Your task to perform on an android device: turn pop-ups off in chrome Image 0: 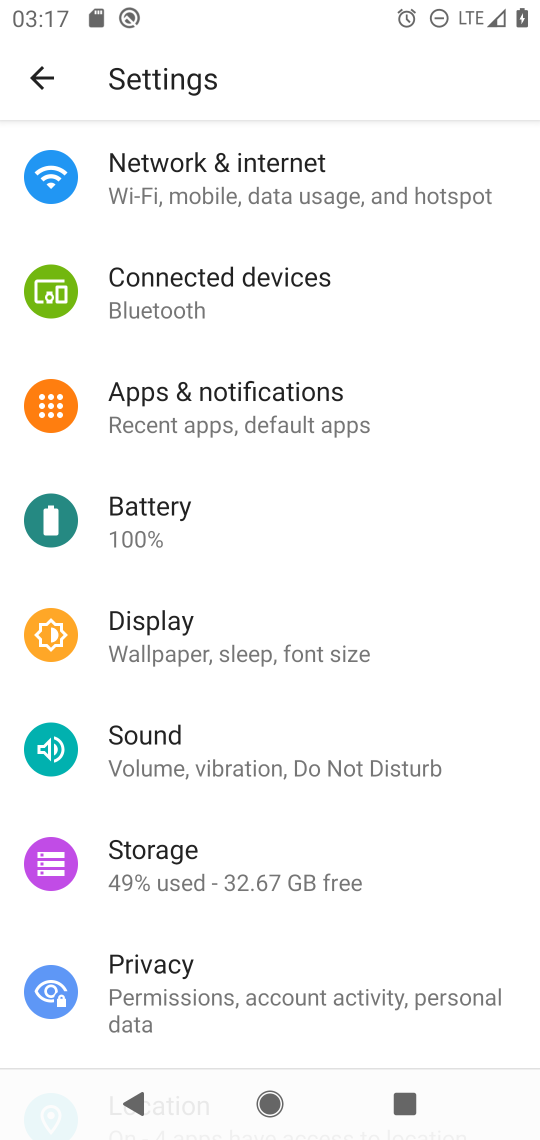
Step 0: press home button
Your task to perform on an android device: turn pop-ups off in chrome Image 1: 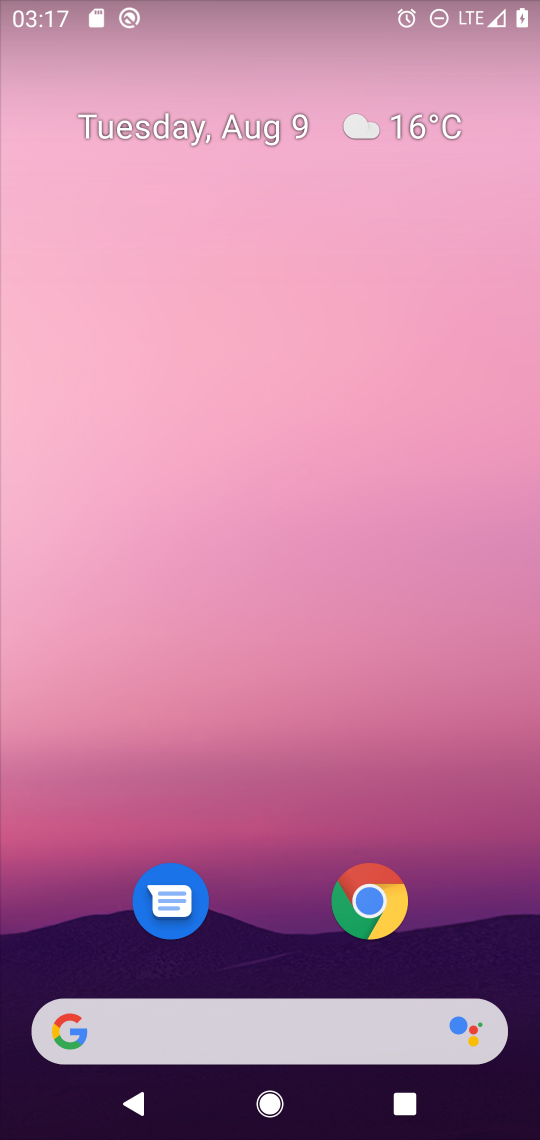
Step 1: click (372, 906)
Your task to perform on an android device: turn pop-ups off in chrome Image 2: 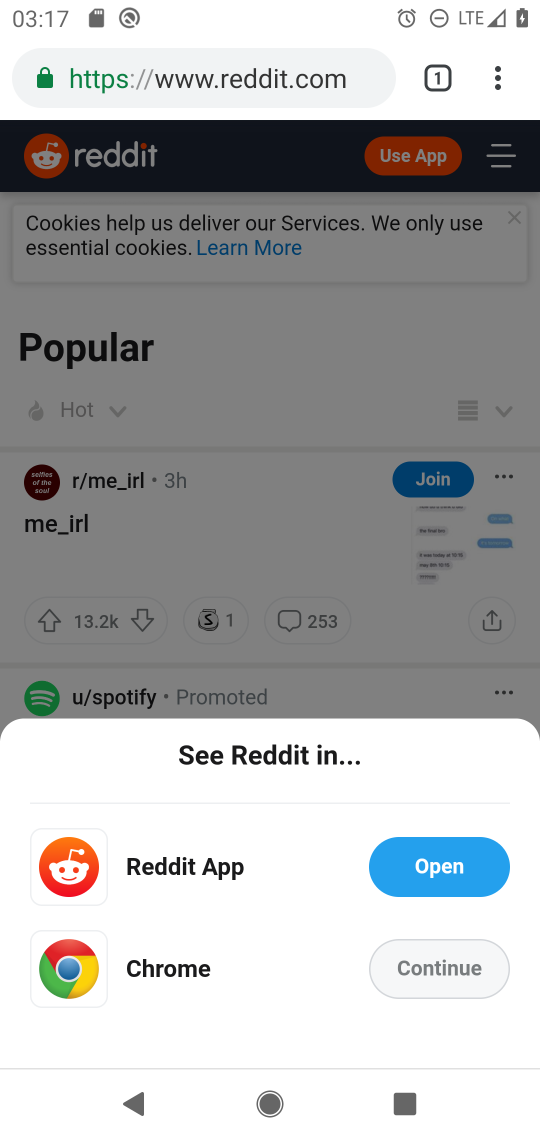
Step 2: click (487, 85)
Your task to perform on an android device: turn pop-ups off in chrome Image 3: 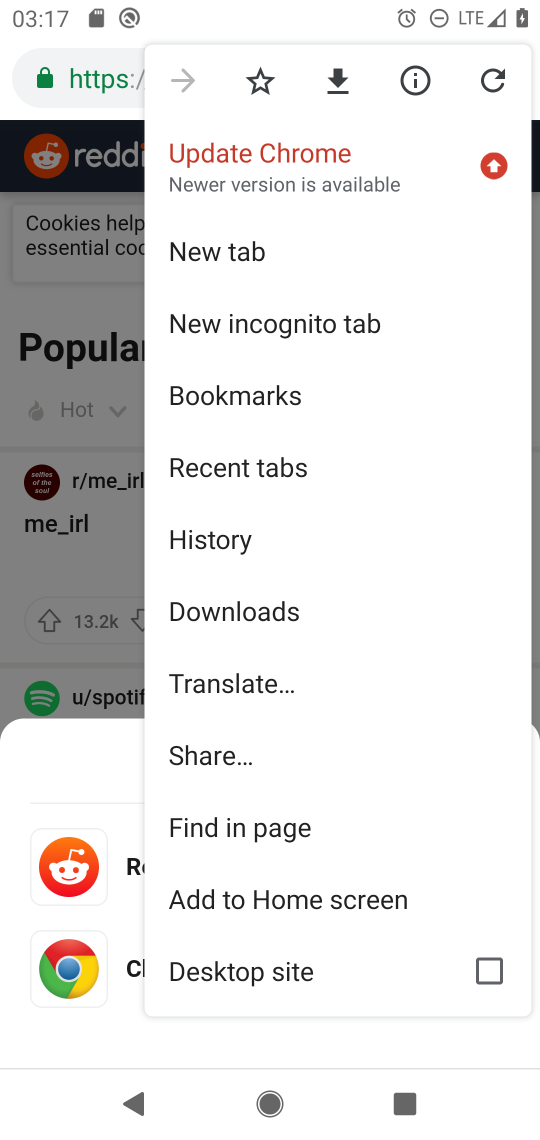
Step 3: drag from (384, 832) to (377, 329)
Your task to perform on an android device: turn pop-ups off in chrome Image 4: 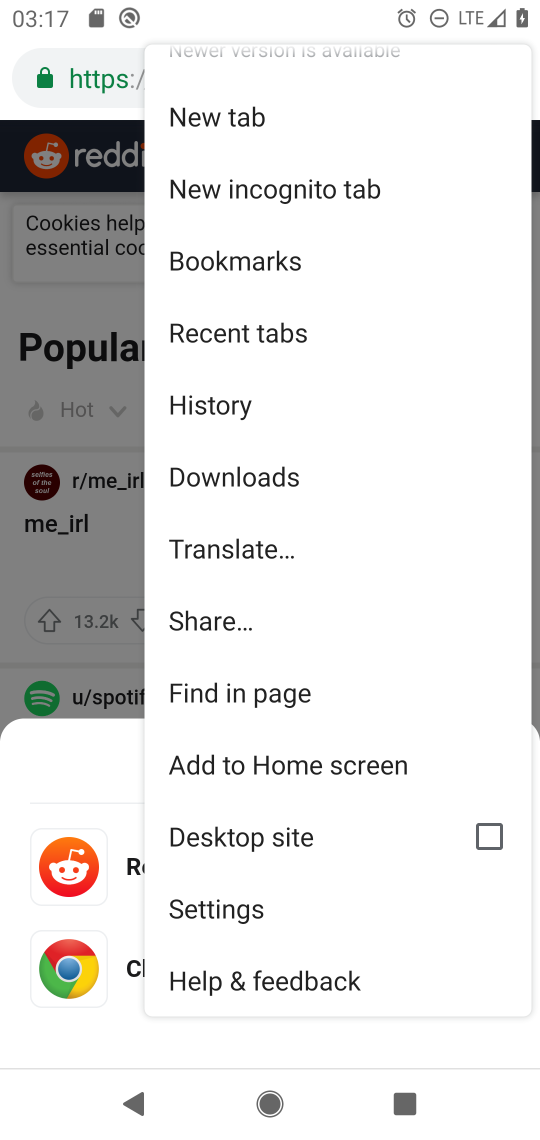
Step 4: click (201, 915)
Your task to perform on an android device: turn pop-ups off in chrome Image 5: 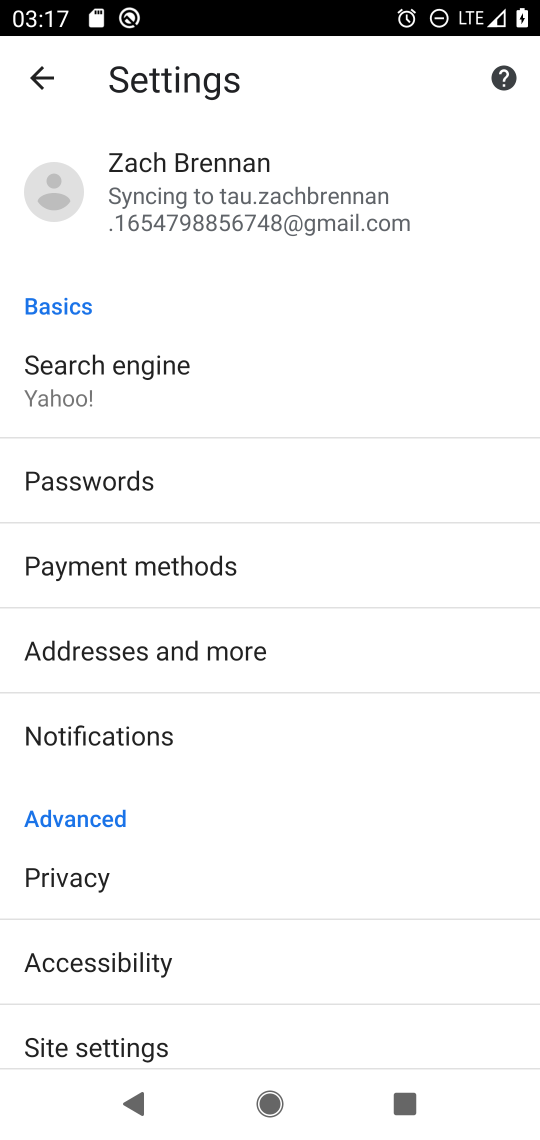
Step 5: drag from (249, 972) to (280, 431)
Your task to perform on an android device: turn pop-ups off in chrome Image 6: 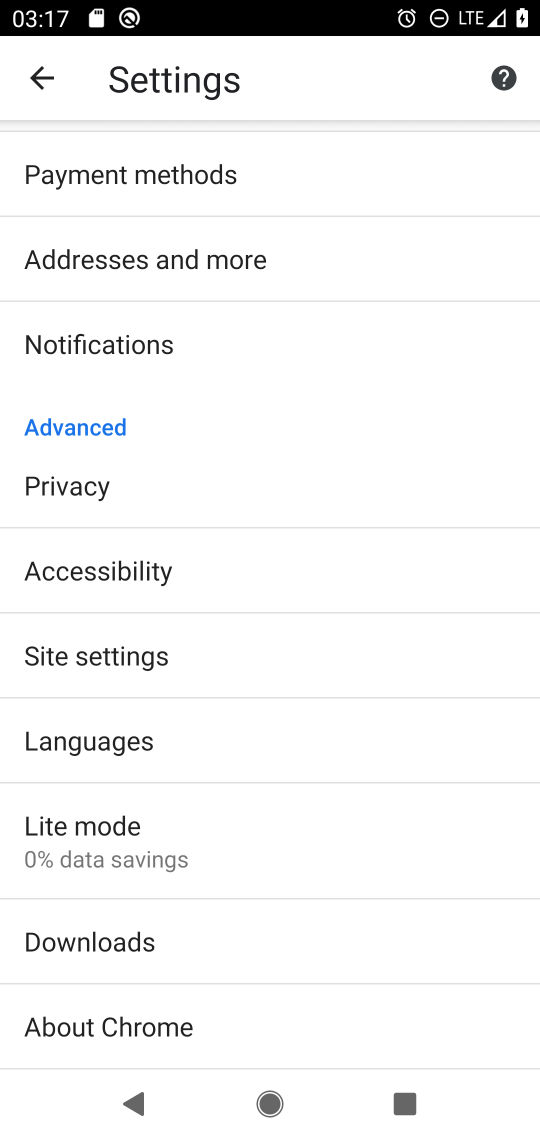
Step 6: click (99, 655)
Your task to perform on an android device: turn pop-ups off in chrome Image 7: 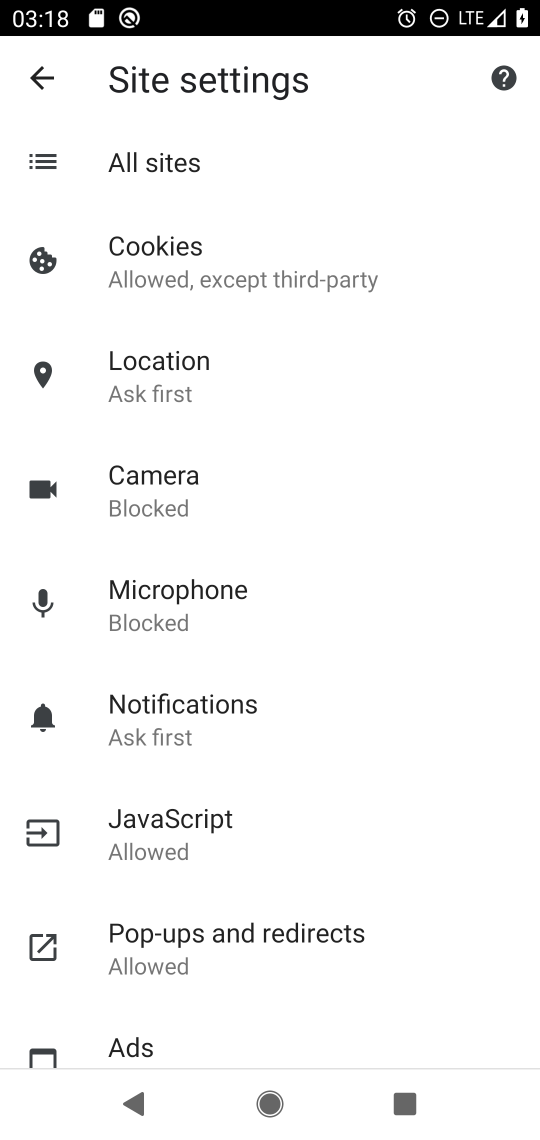
Step 7: click (203, 950)
Your task to perform on an android device: turn pop-ups off in chrome Image 8: 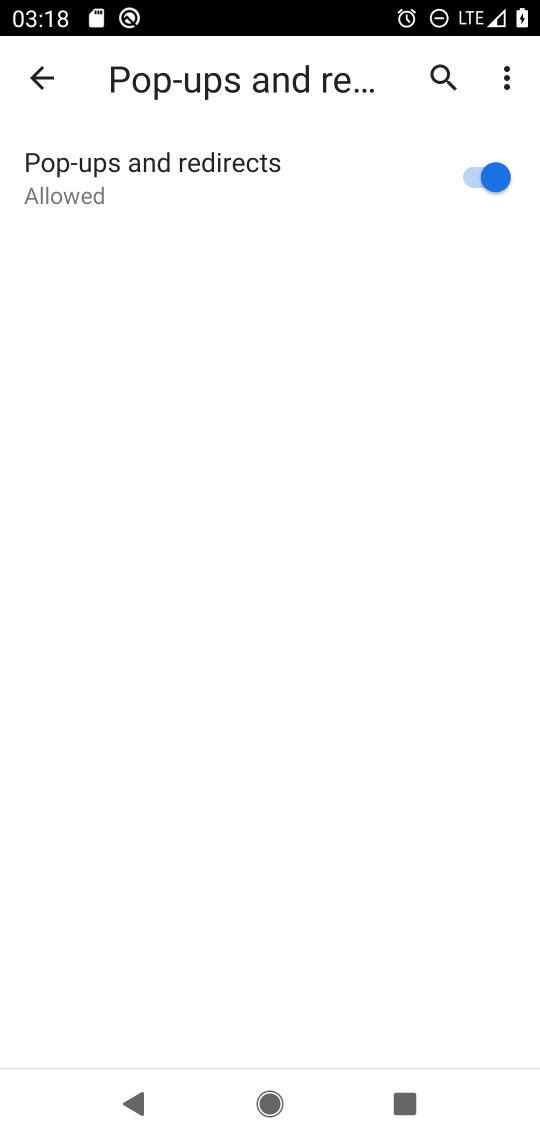
Step 8: click (475, 172)
Your task to perform on an android device: turn pop-ups off in chrome Image 9: 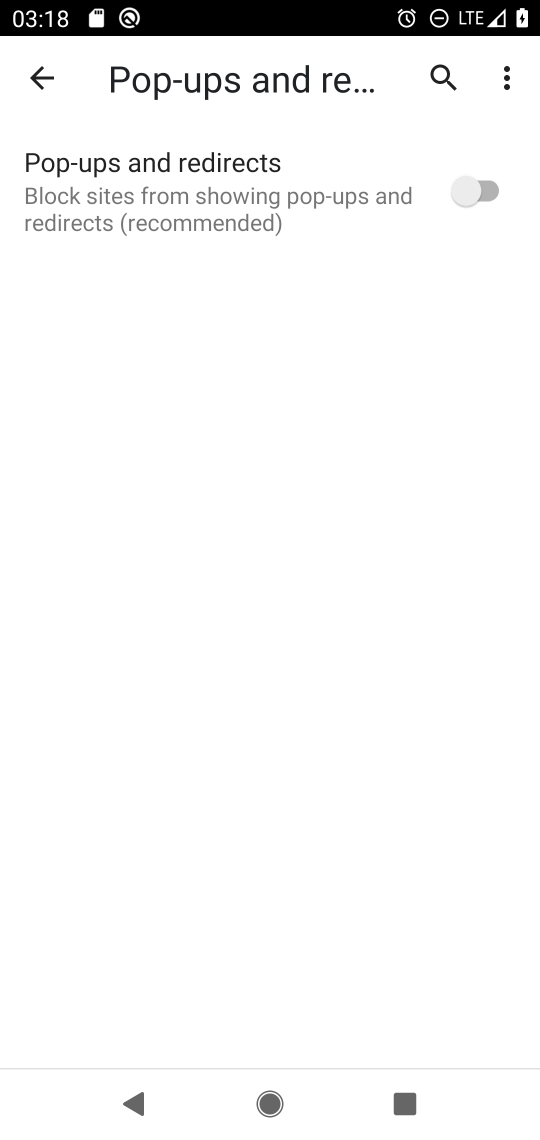
Step 9: task complete